Your task to perform on an android device: Open Google Maps and go to "Timeline" Image 0: 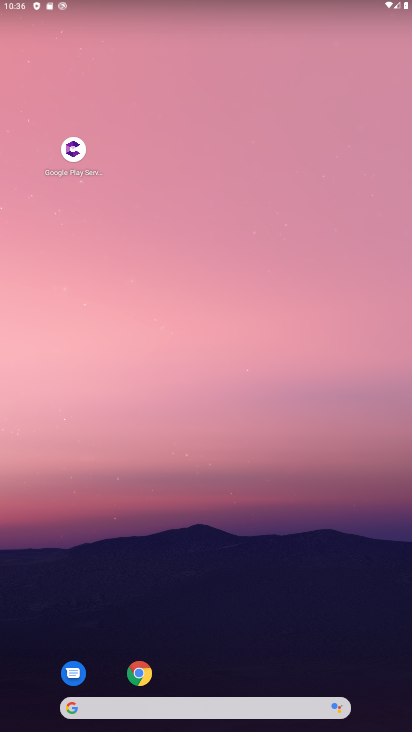
Step 0: drag from (175, 698) to (236, 218)
Your task to perform on an android device: Open Google Maps and go to "Timeline" Image 1: 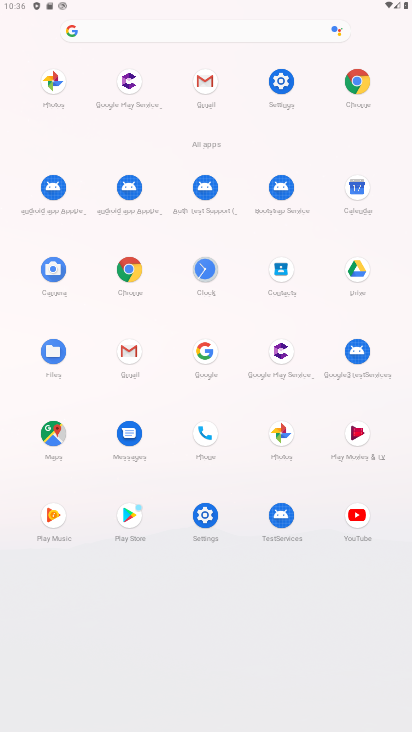
Step 1: click (56, 434)
Your task to perform on an android device: Open Google Maps and go to "Timeline" Image 2: 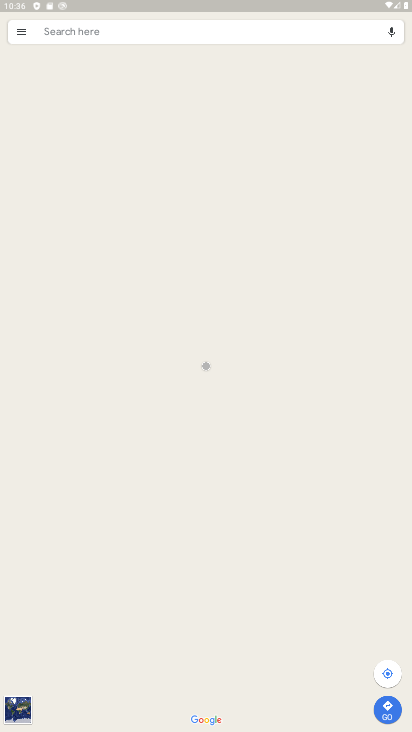
Step 2: click (26, 28)
Your task to perform on an android device: Open Google Maps and go to "Timeline" Image 3: 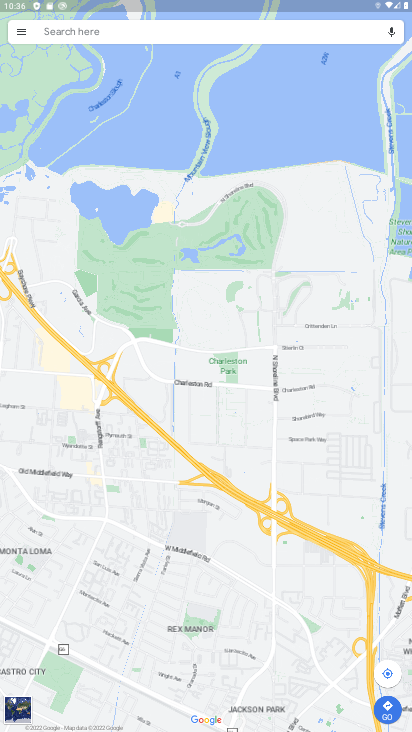
Step 3: click (28, 26)
Your task to perform on an android device: Open Google Maps and go to "Timeline" Image 4: 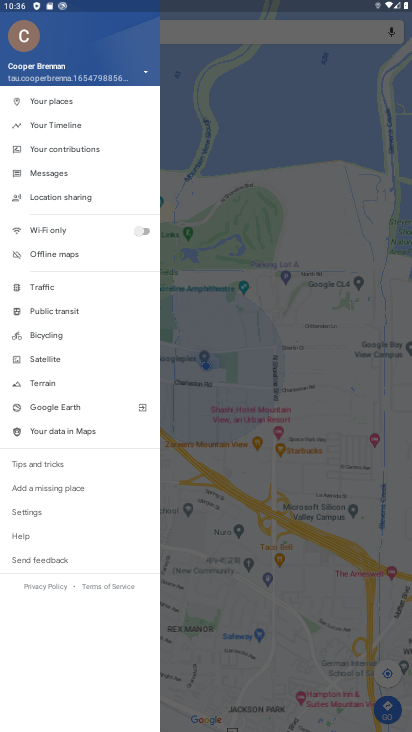
Step 4: click (52, 132)
Your task to perform on an android device: Open Google Maps and go to "Timeline" Image 5: 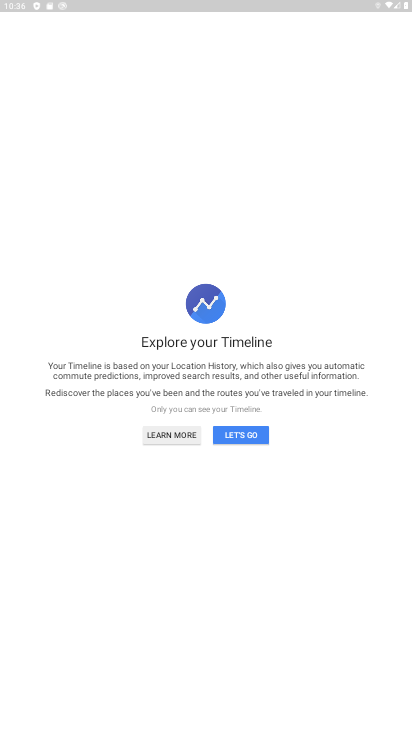
Step 5: click (246, 431)
Your task to perform on an android device: Open Google Maps and go to "Timeline" Image 6: 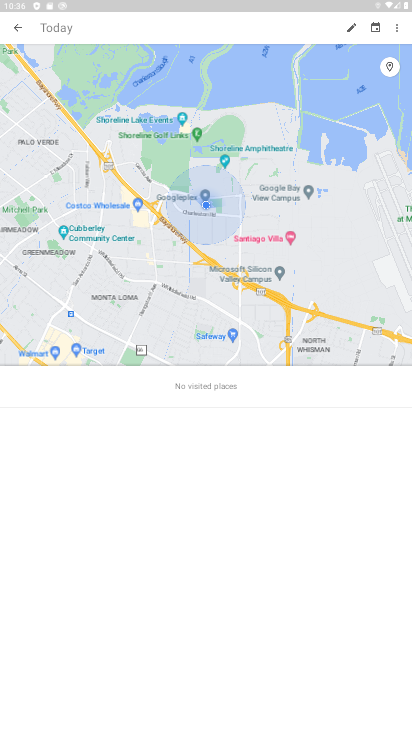
Step 6: task complete